Your task to perform on an android device: Open the phone app and click the voicemail tab. Image 0: 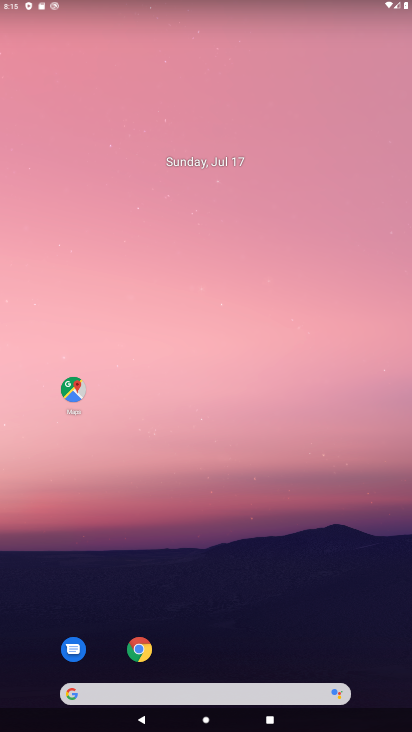
Step 0: drag from (281, 647) to (238, 147)
Your task to perform on an android device: Open the phone app and click the voicemail tab. Image 1: 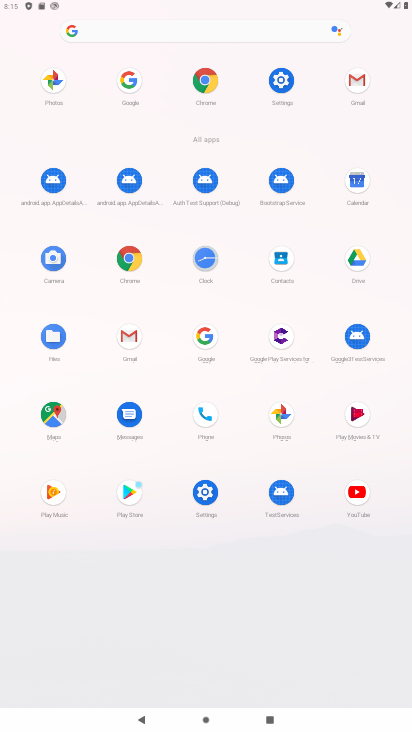
Step 1: click (208, 413)
Your task to perform on an android device: Open the phone app and click the voicemail tab. Image 2: 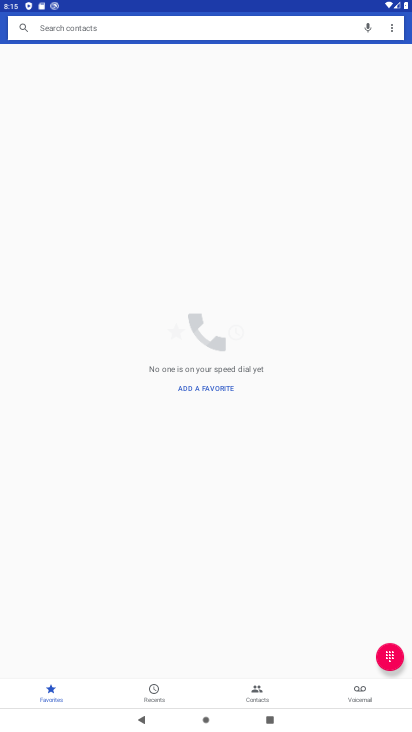
Step 2: click (364, 689)
Your task to perform on an android device: Open the phone app and click the voicemail tab. Image 3: 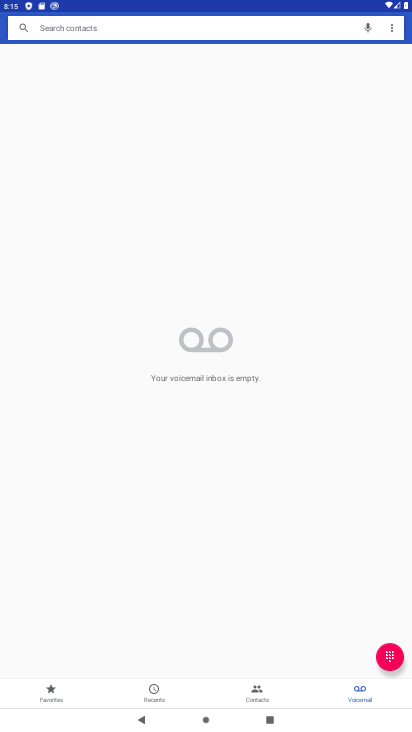
Step 3: task complete